Your task to perform on an android device: add a contact Image 0: 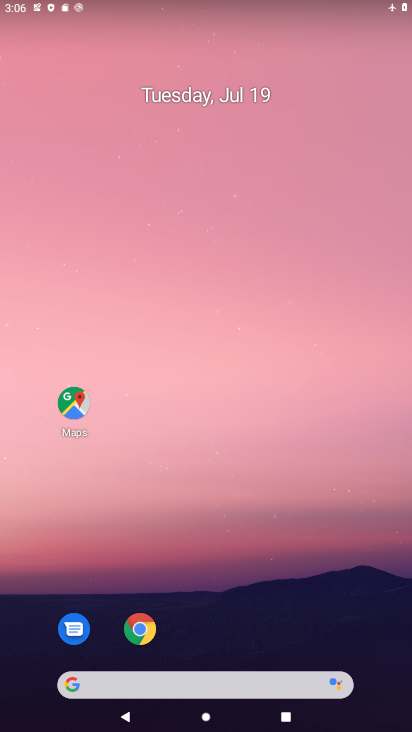
Step 0: drag from (215, 664) to (168, 220)
Your task to perform on an android device: add a contact Image 1: 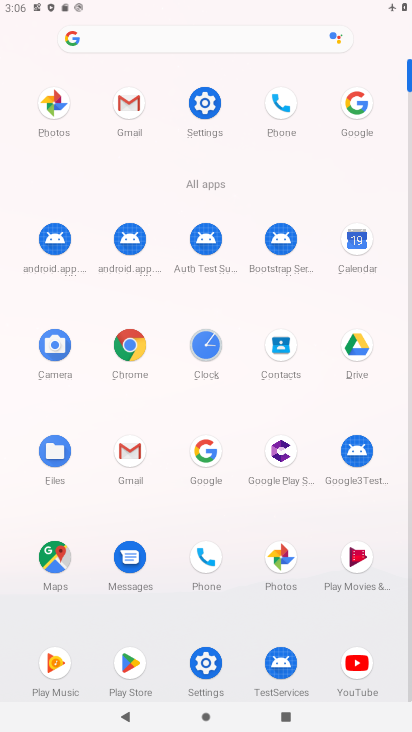
Step 1: click (282, 344)
Your task to perform on an android device: add a contact Image 2: 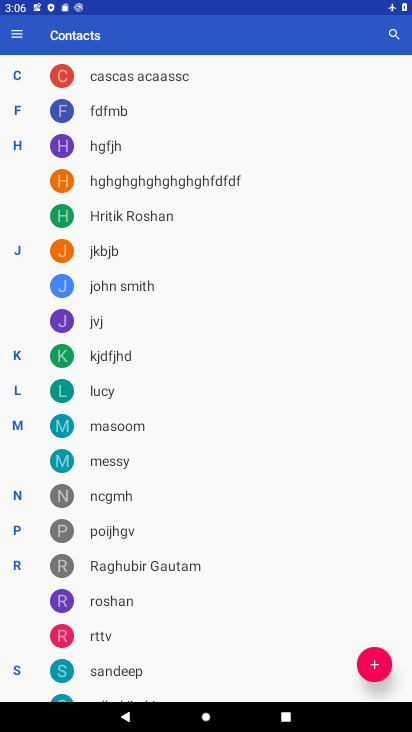
Step 2: click (376, 666)
Your task to perform on an android device: add a contact Image 3: 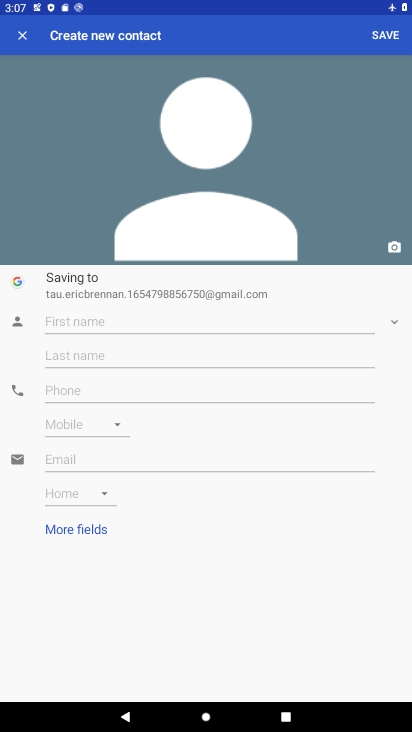
Step 3: click (78, 320)
Your task to perform on an android device: add a contact Image 4: 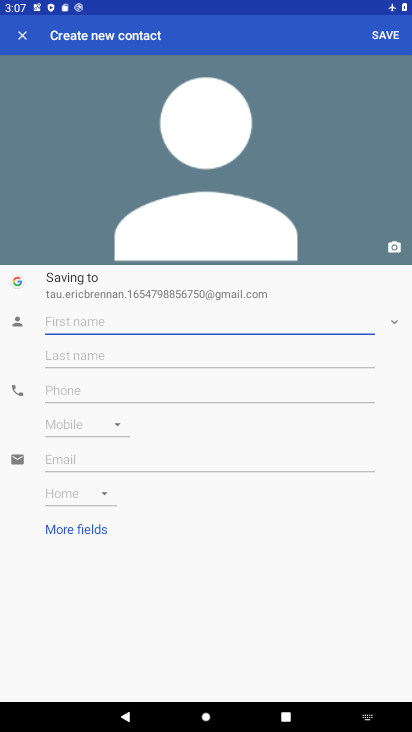
Step 4: type "hfgd"
Your task to perform on an android device: add a contact Image 5: 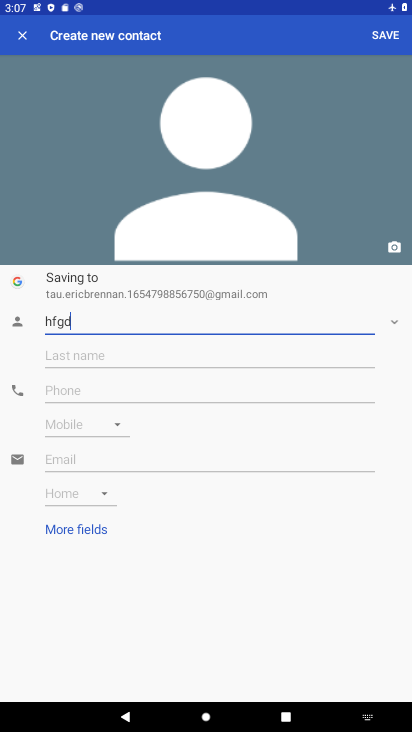
Step 5: click (142, 388)
Your task to perform on an android device: add a contact Image 6: 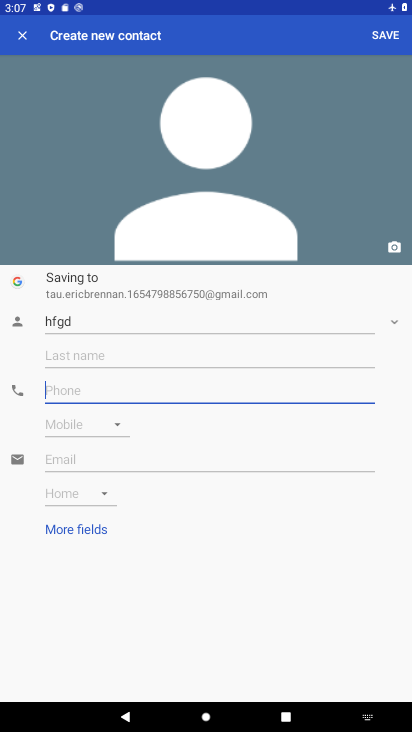
Step 6: type "76575564567"
Your task to perform on an android device: add a contact Image 7: 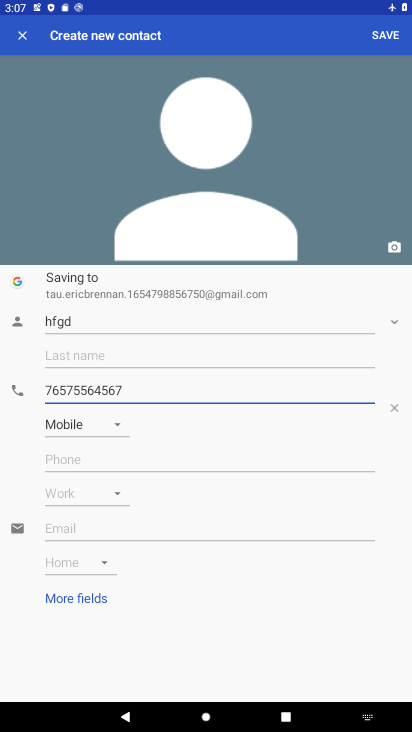
Step 7: click (379, 37)
Your task to perform on an android device: add a contact Image 8: 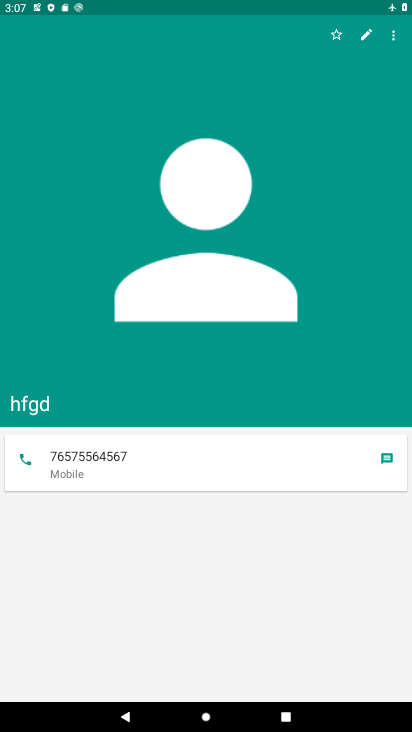
Step 8: task complete